Your task to perform on an android device: Search for logitech g pro on costco, select the first entry, and add it to the cart. Image 0: 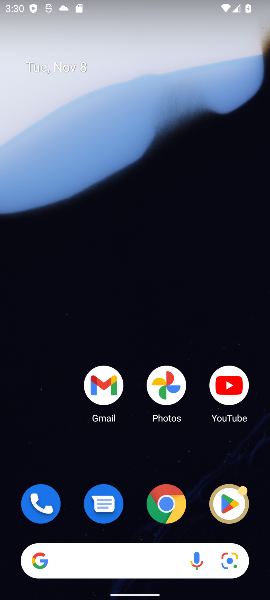
Step 0: drag from (134, 508) to (180, 73)
Your task to perform on an android device: Search for logitech g pro on costco, select the first entry, and add it to the cart. Image 1: 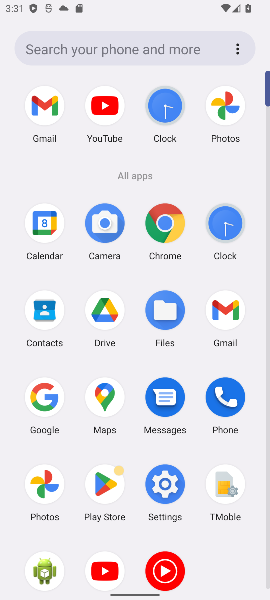
Step 1: click (168, 216)
Your task to perform on an android device: Search for logitech g pro on costco, select the first entry, and add it to the cart. Image 2: 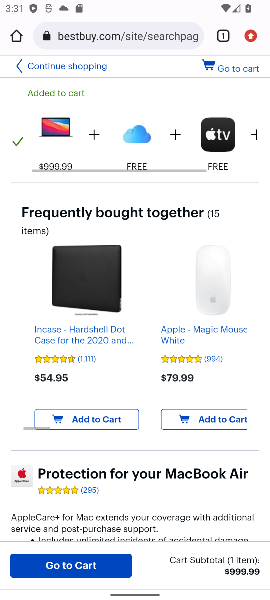
Step 2: click (78, 33)
Your task to perform on an android device: Search for logitech g pro on costco, select the first entry, and add it to the cart. Image 3: 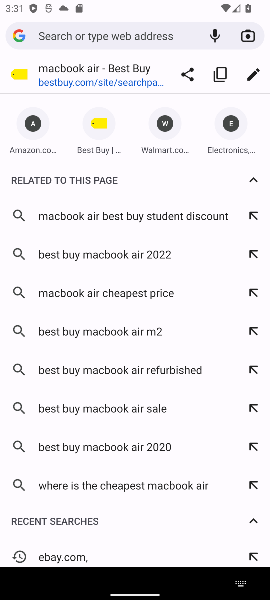
Step 3: type "costco"
Your task to perform on an android device: Search for logitech g pro on costco, select the first entry, and add it to the cart. Image 4: 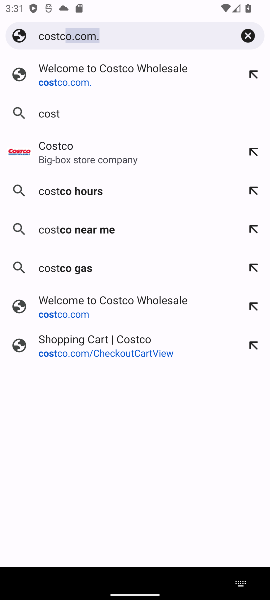
Step 4: press enter
Your task to perform on an android device: Search for logitech g pro on costco, select the first entry, and add it to the cart. Image 5: 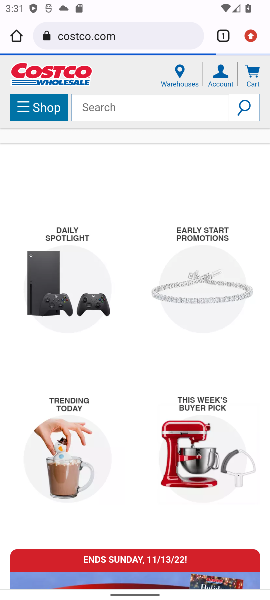
Step 5: click (135, 111)
Your task to perform on an android device: Search for logitech g pro on costco, select the first entry, and add it to the cart. Image 6: 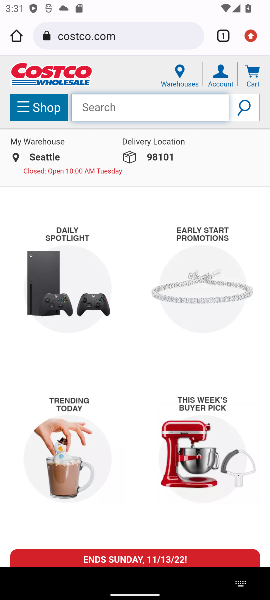
Step 6: type "logitech g pro "
Your task to perform on an android device: Search for logitech g pro on costco, select the first entry, and add it to the cart. Image 7: 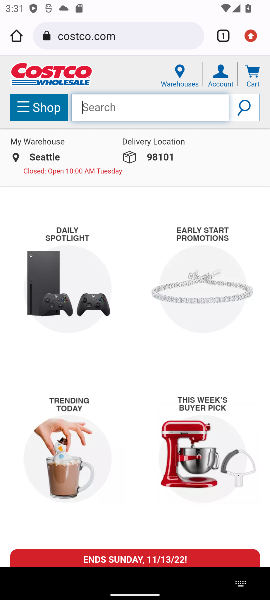
Step 7: press enter
Your task to perform on an android device: Search for logitech g pro on costco, select the first entry, and add it to the cart. Image 8: 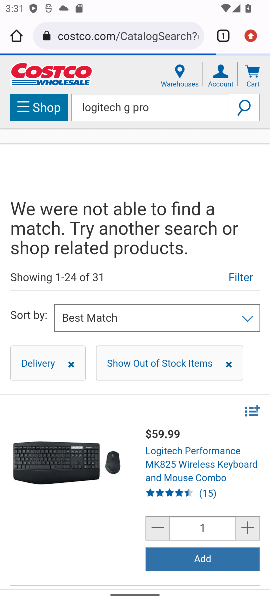
Step 8: drag from (147, 415) to (182, 266)
Your task to perform on an android device: Search for logitech g pro on costco, select the first entry, and add it to the cart. Image 9: 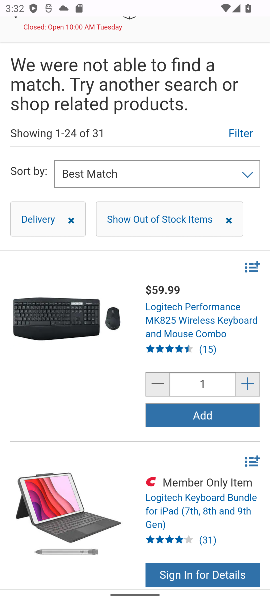
Step 9: click (208, 412)
Your task to perform on an android device: Search for logitech g pro on costco, select the first entry, and add it to the cart. Image 10: 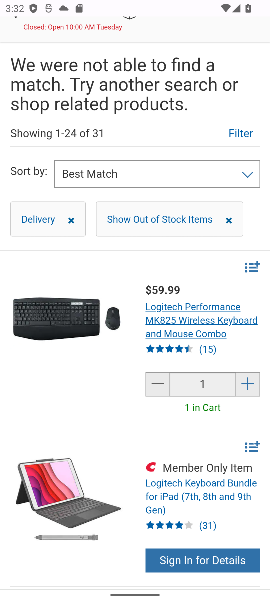
Step 10: task complete